Your task to perform on an android device: empty trash in google photos Image 0: 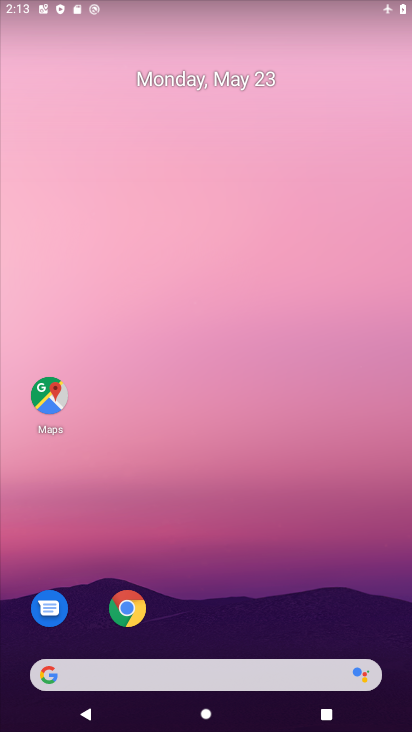
Step 0: drag from (209, 646) to (212, 99)
Your task to perform on an android device: empty trash in google photos Image 1: 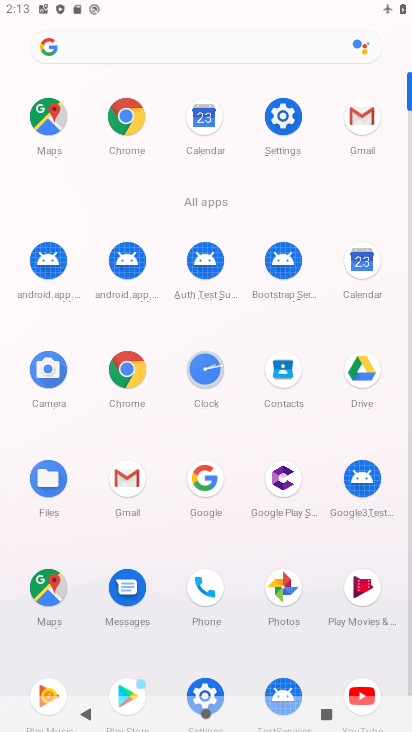
Step 1: click (282, 586)
Your task to perform on an android device: empty trash in google photos Image 2: 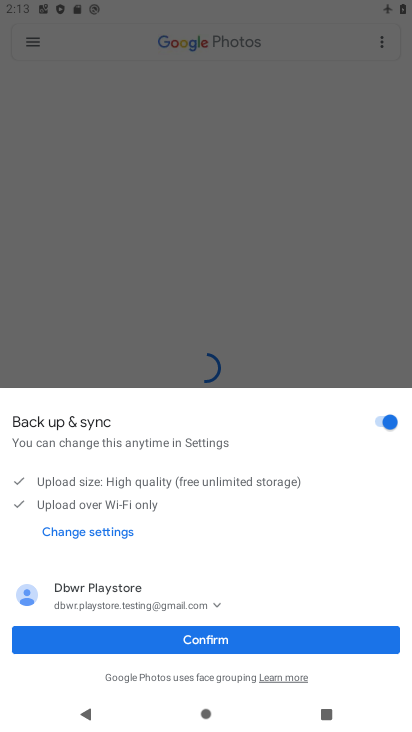
Step 2: click (220, 640)
Your task to perform on an android device: empty trash in google photos Image 3: 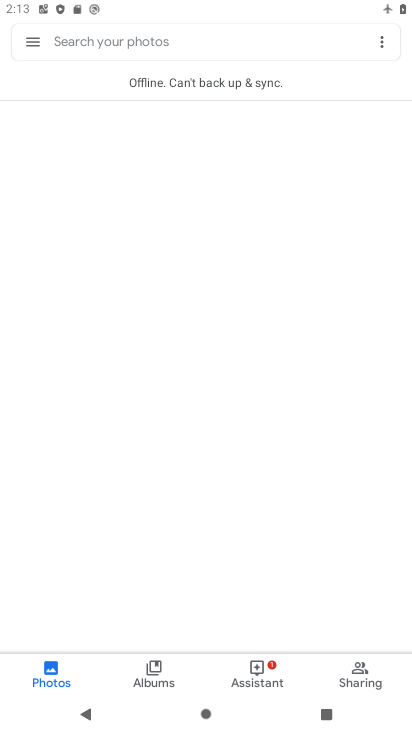
Step 3: click (29, 42)
Your task to perform on an android device: empty trash in google photos Image 4: 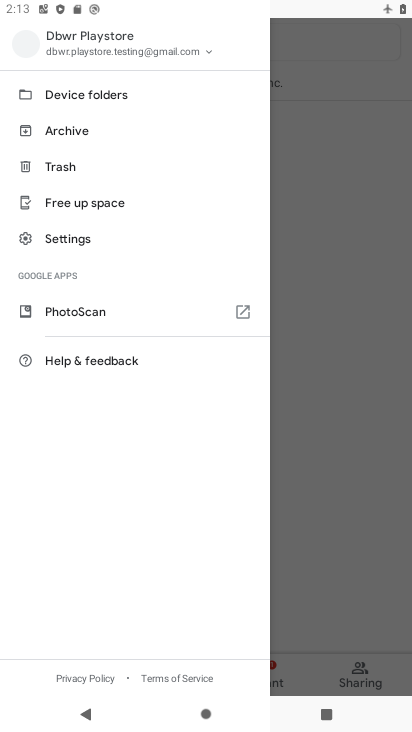
Step 4: click (60, 162)
Your task to perform on an android device: empty trash in google photos Image 5: 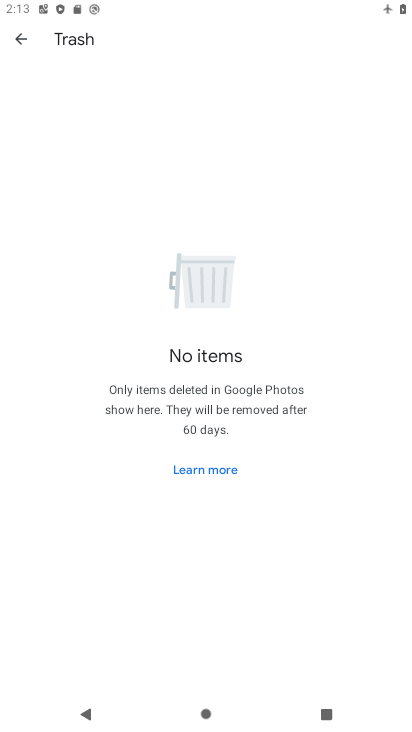
Step 5: task complete